Your task to perform on an android device: set the timer Image 0: 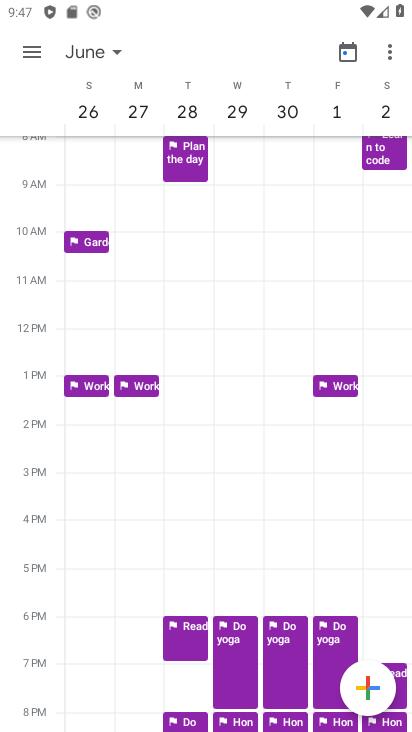
Step 0: press home button
Your task to perform on an android device: set the timer Image 1: 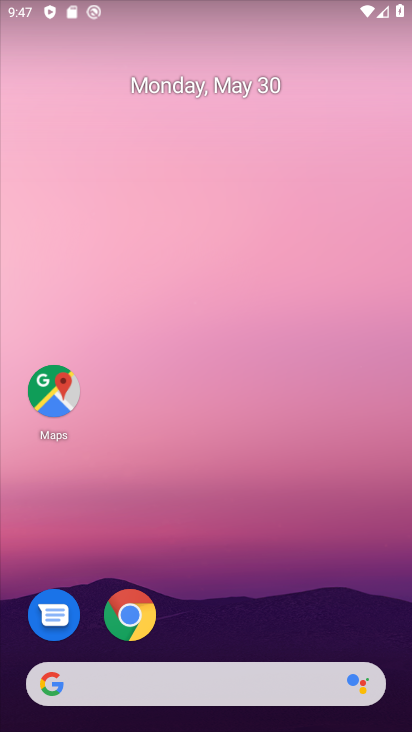
Step 1: drag from (223, 721) to (220, 53)
Your task to perform on an android device: set the timer Image 2: 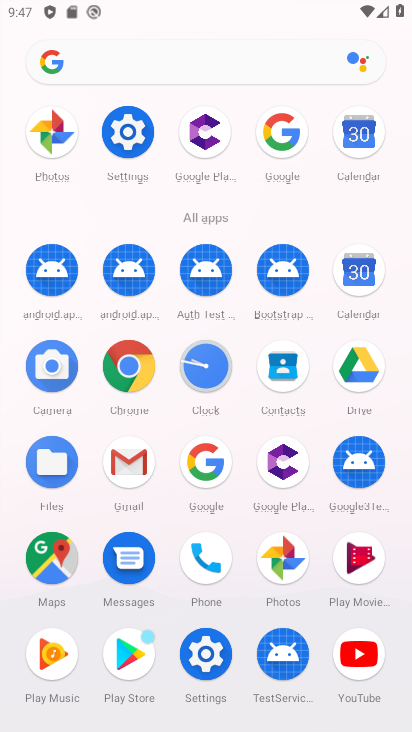
Step 2: click (198, 375)
Your task to perform on an android device: set the timer Image 3: 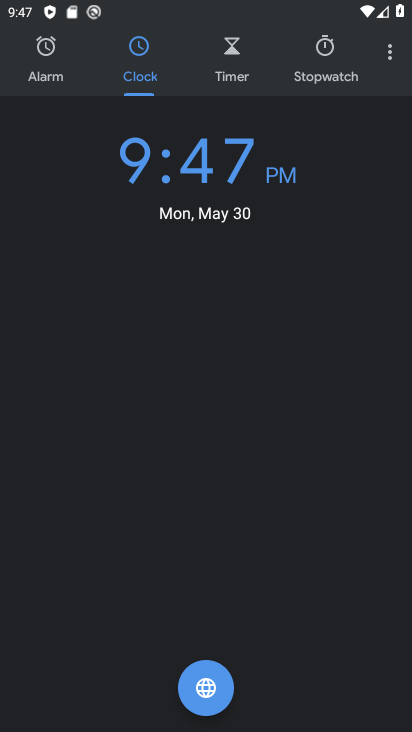
Step 3: click (232, 51)
Your task to perform on an android device: set the timer Image 4: 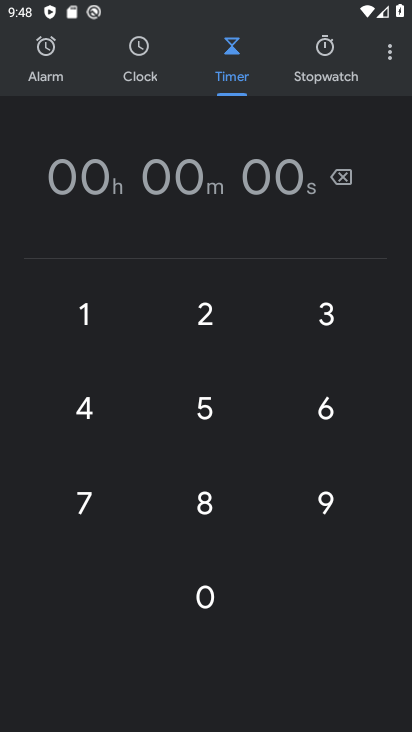
Step 4: click (209, 313)
Your task to perform on an android device: set the timer Image 5: 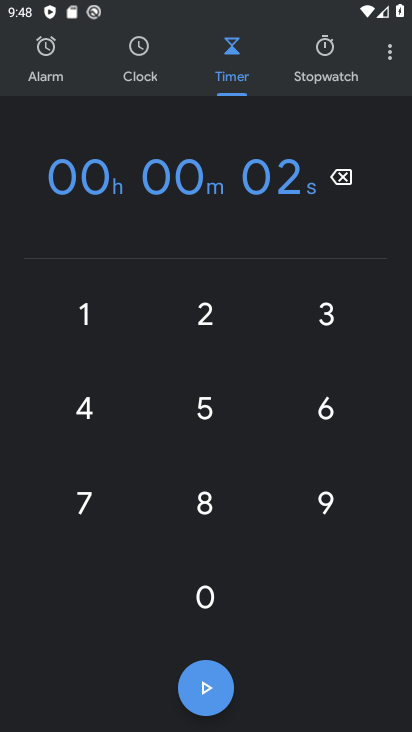
Step 5: click (70, 409)
Your task to perform on an android device: set the timer Image 6: 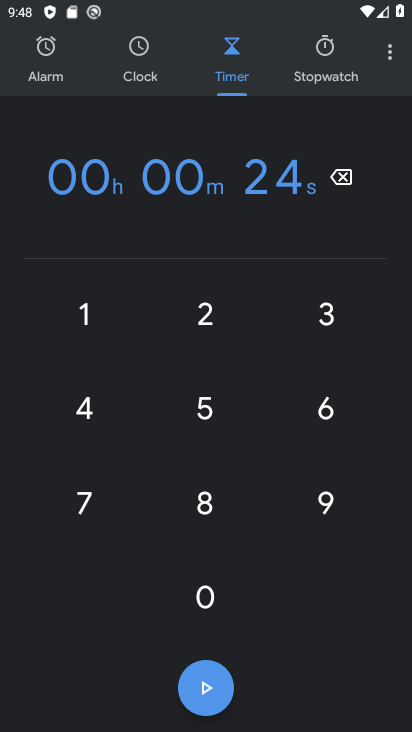
Step 6: click (203, 402)
Your task to perform on an android device: set the timer Image 7: 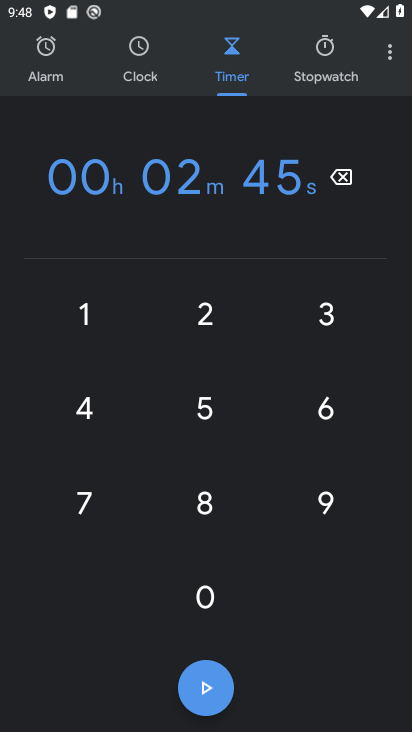
Step 7: click (204, 690)
Your task to perform on an android device: set the timer Image 8: 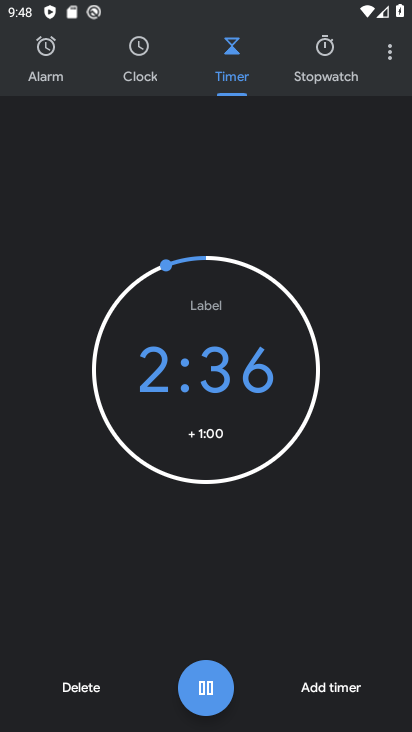
Step 8: task complete